Your task to perform on an android device: open app "The Home Depot" (install if not already installed), go to login, and select forgot password Image 0: 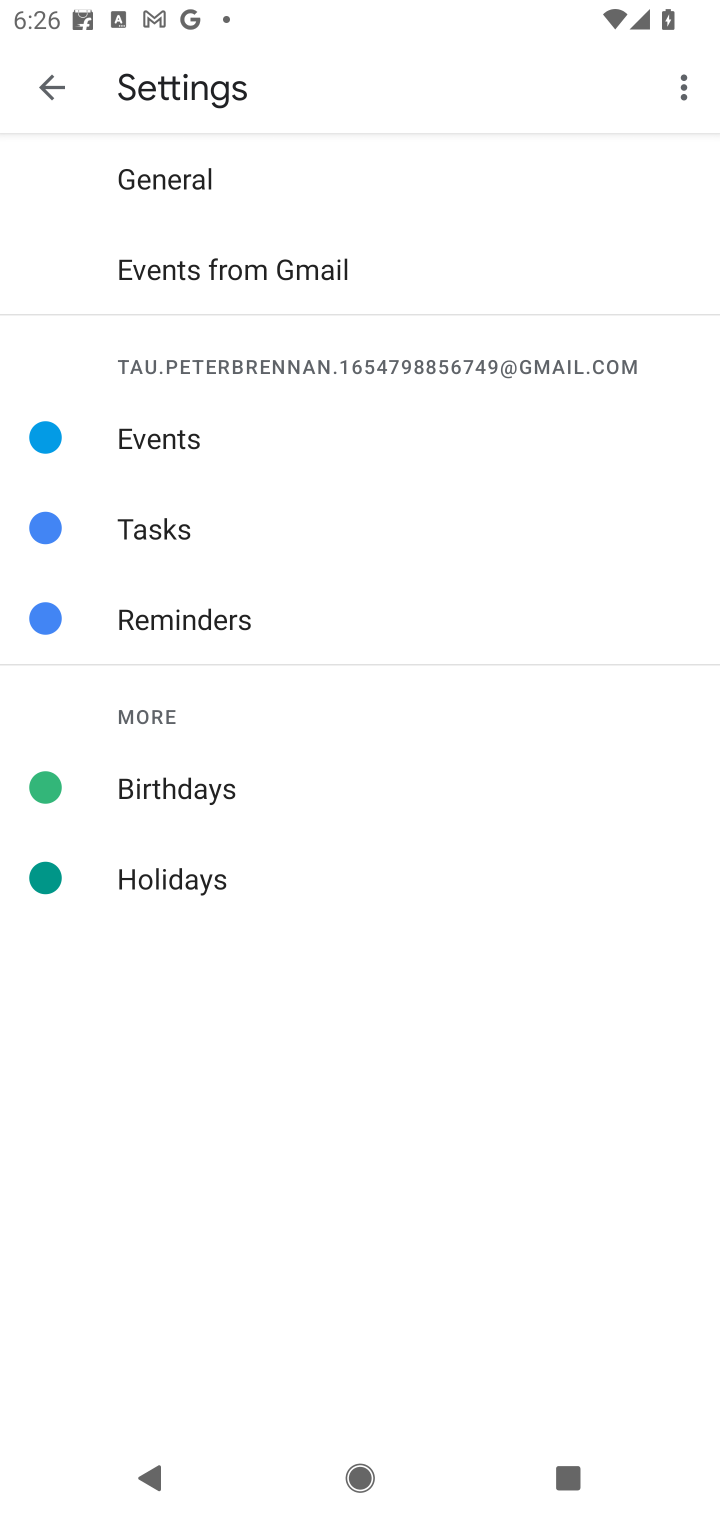
Step 0: press home button
Your task to perform on an android device: open app "The Home Depot" (install if not already installed), go to login, and select forgot password Image 1: 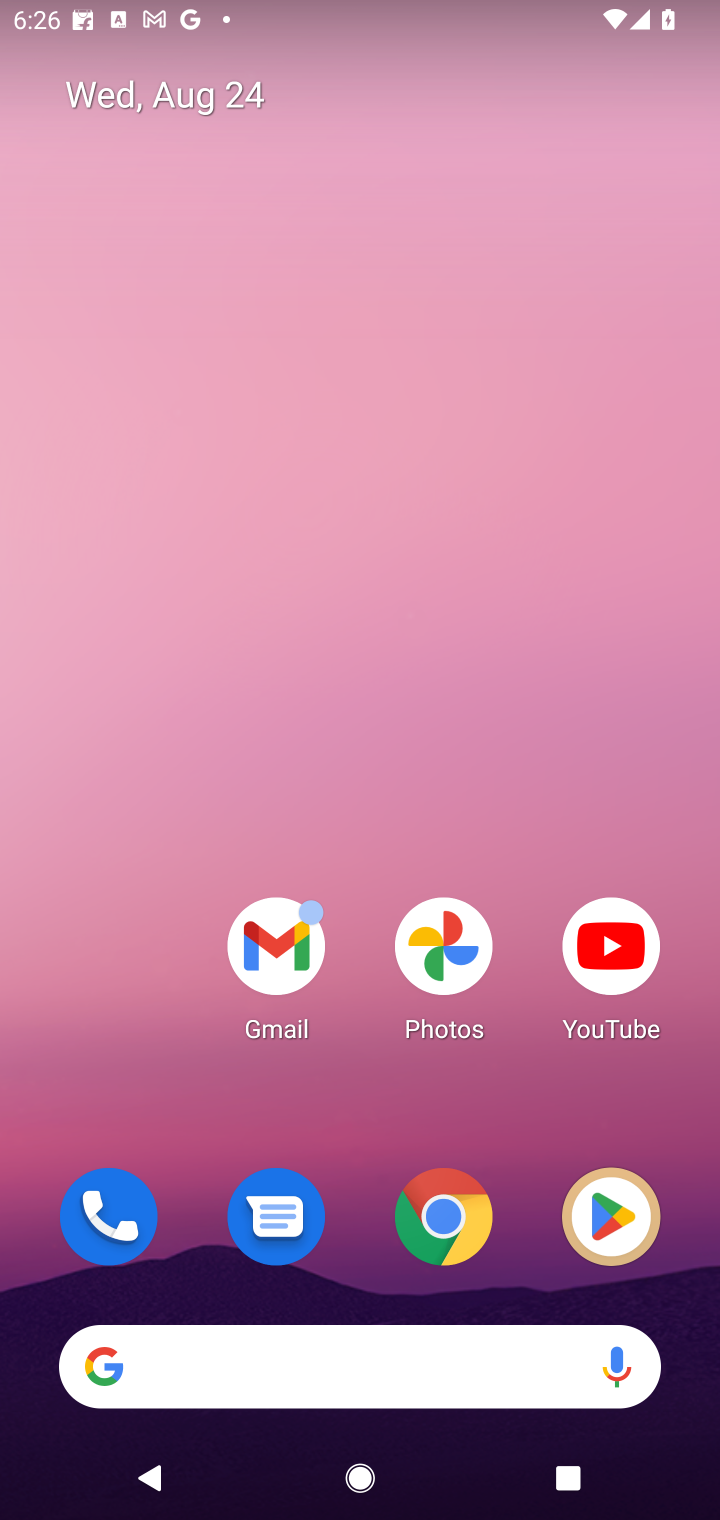
Step 1: click (598, 1201)
Your task to perform on an android device: open app "The Home Depot" (install if not already installed), go to login, and select forgot password Image 2: 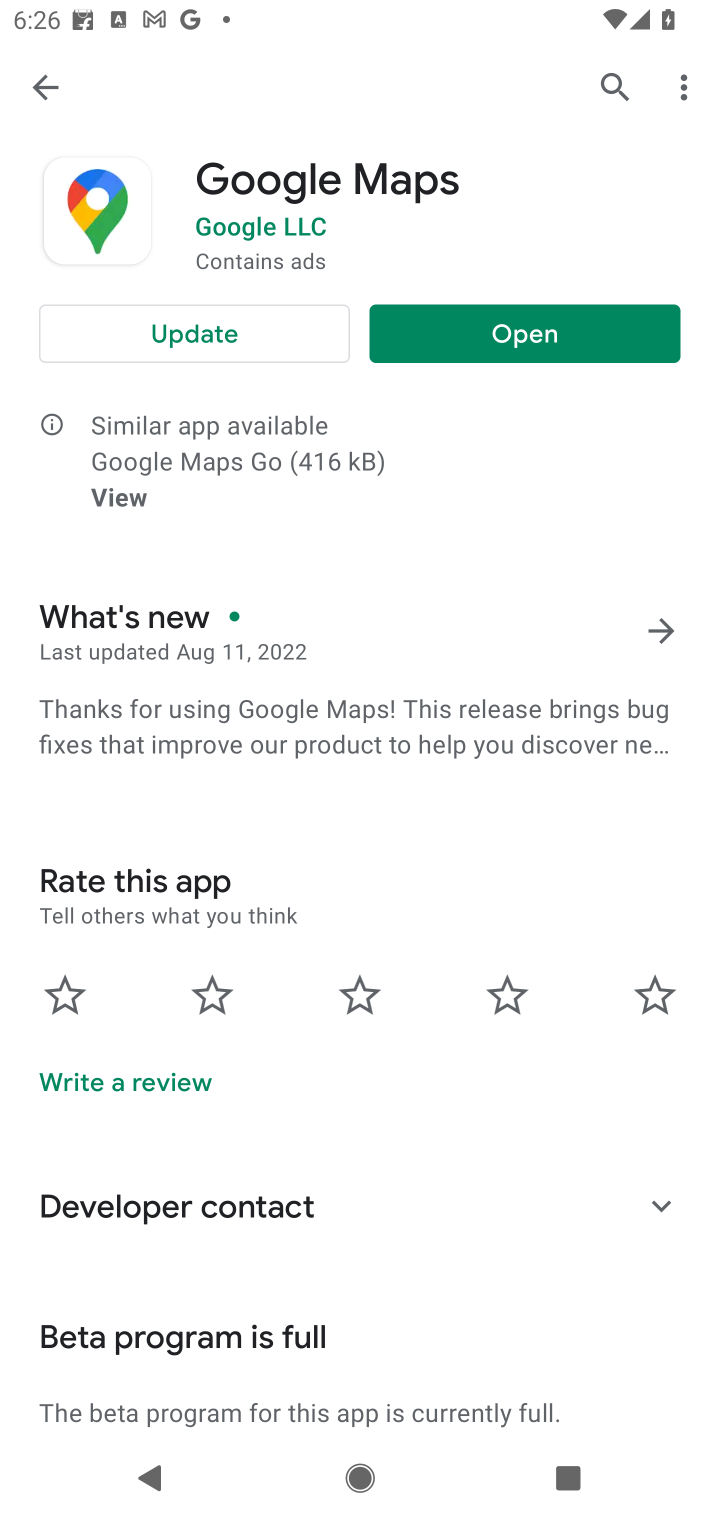
Step 2: click (596, 75)
Your task to perform on an android device: open app "The Home Depot" (install if not already installed), go to login, and select forgot password Image 3: 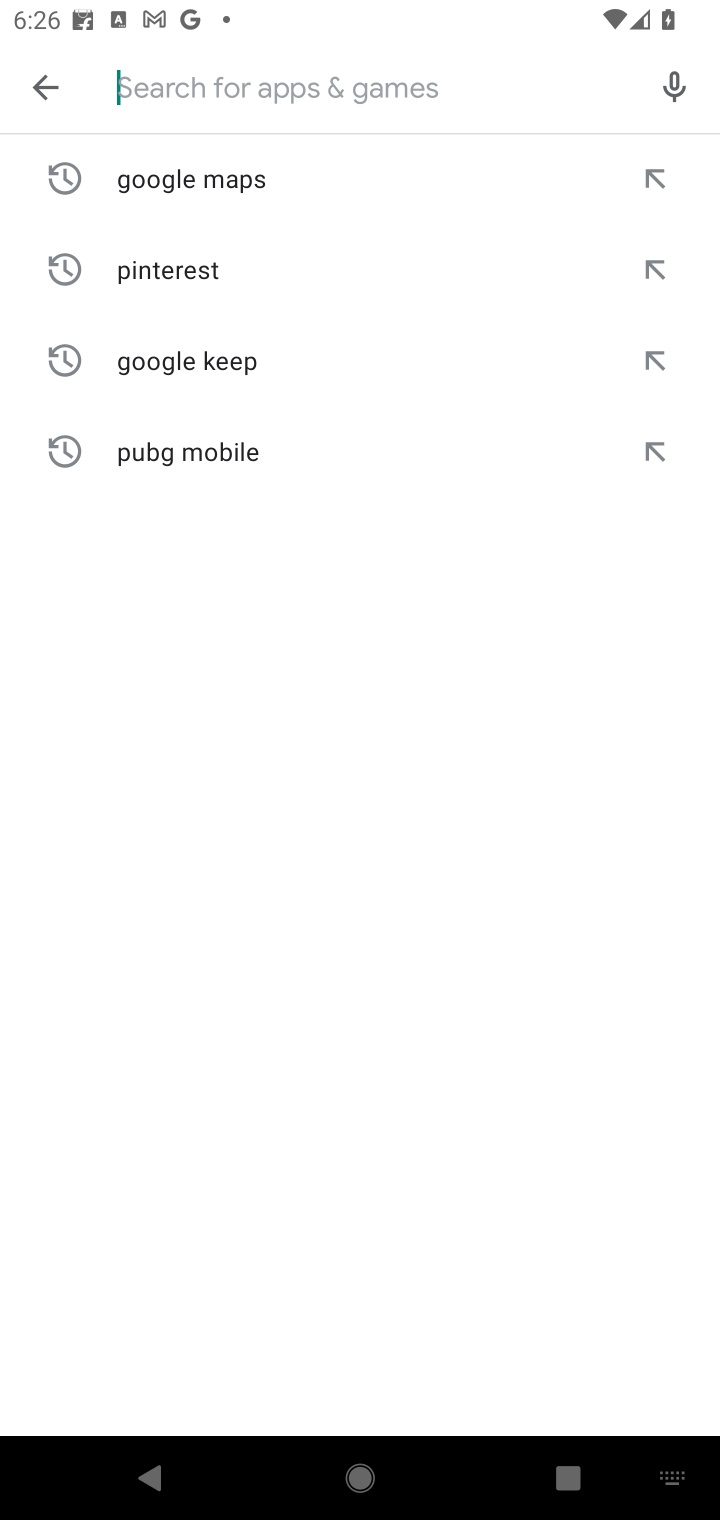
Step 3: type "The Home Depot"
Your task to perform on an android device: open app "The Home Depot" (install if not already installed), go to login, and select forgot password Image 4: 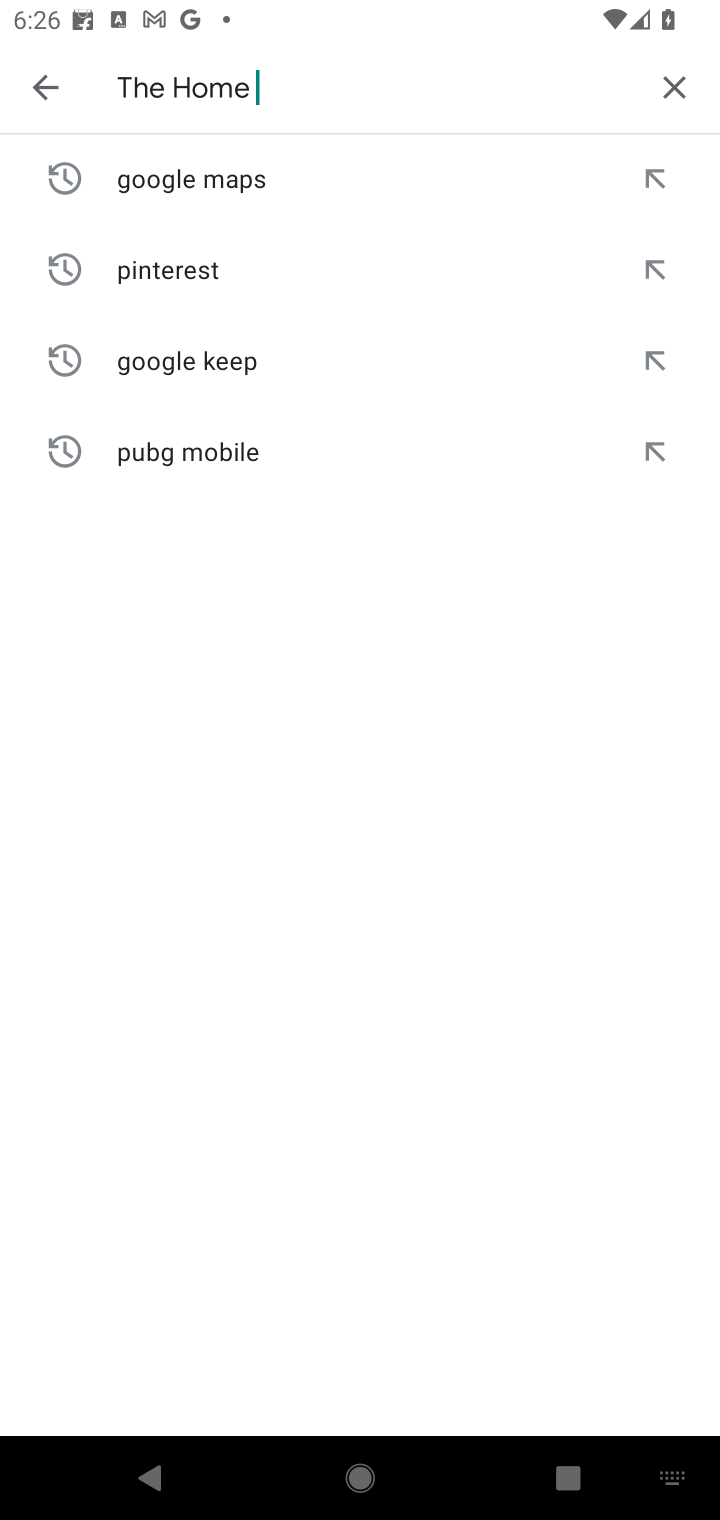
Step 4: type ""
Your task to perform on an android device: open app "The Home Depot" (install if not already installed), go to login, and select forgot password Image 5: 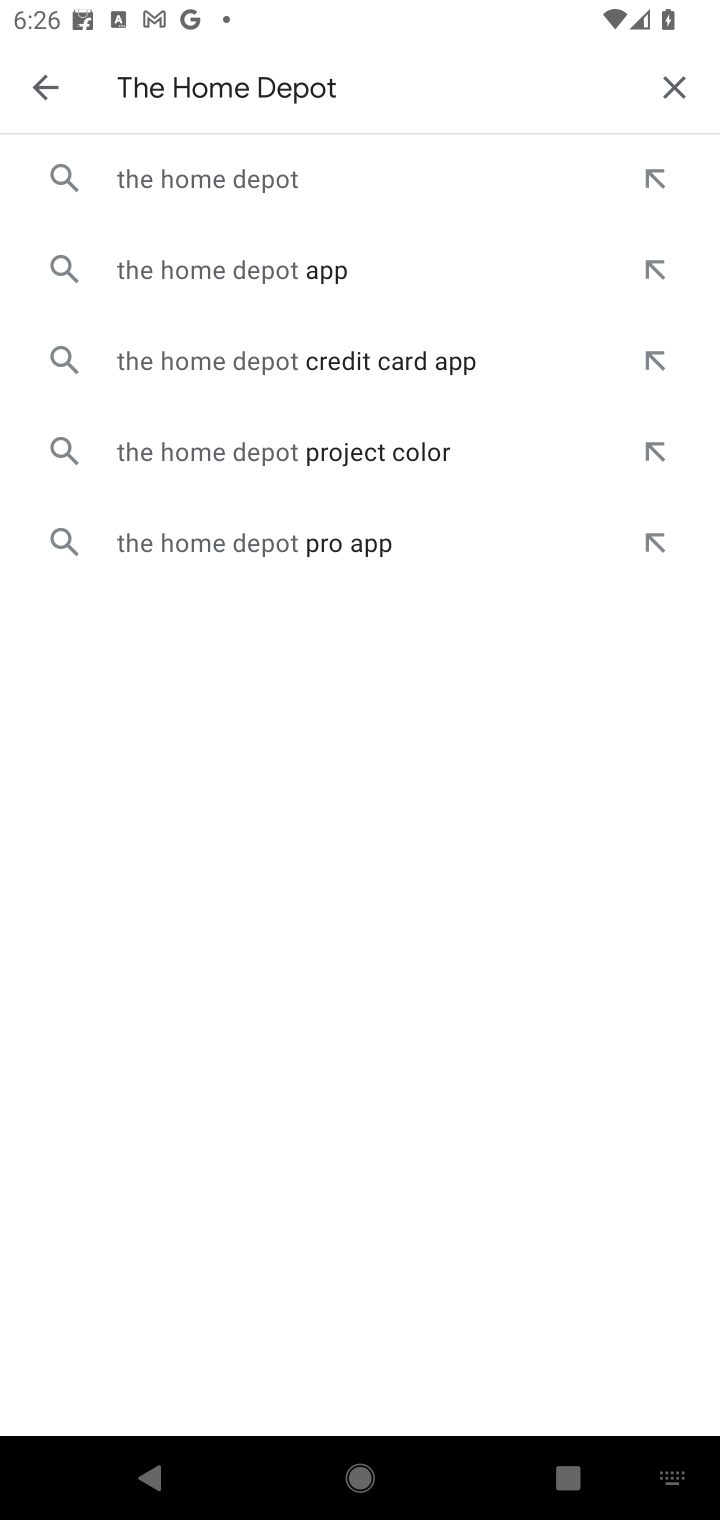
Step 5: click (351, 177)
Your task to perform on an android device: open app "The Home Depot" (install if not already installed), go to login, and select forgot password Image 6: 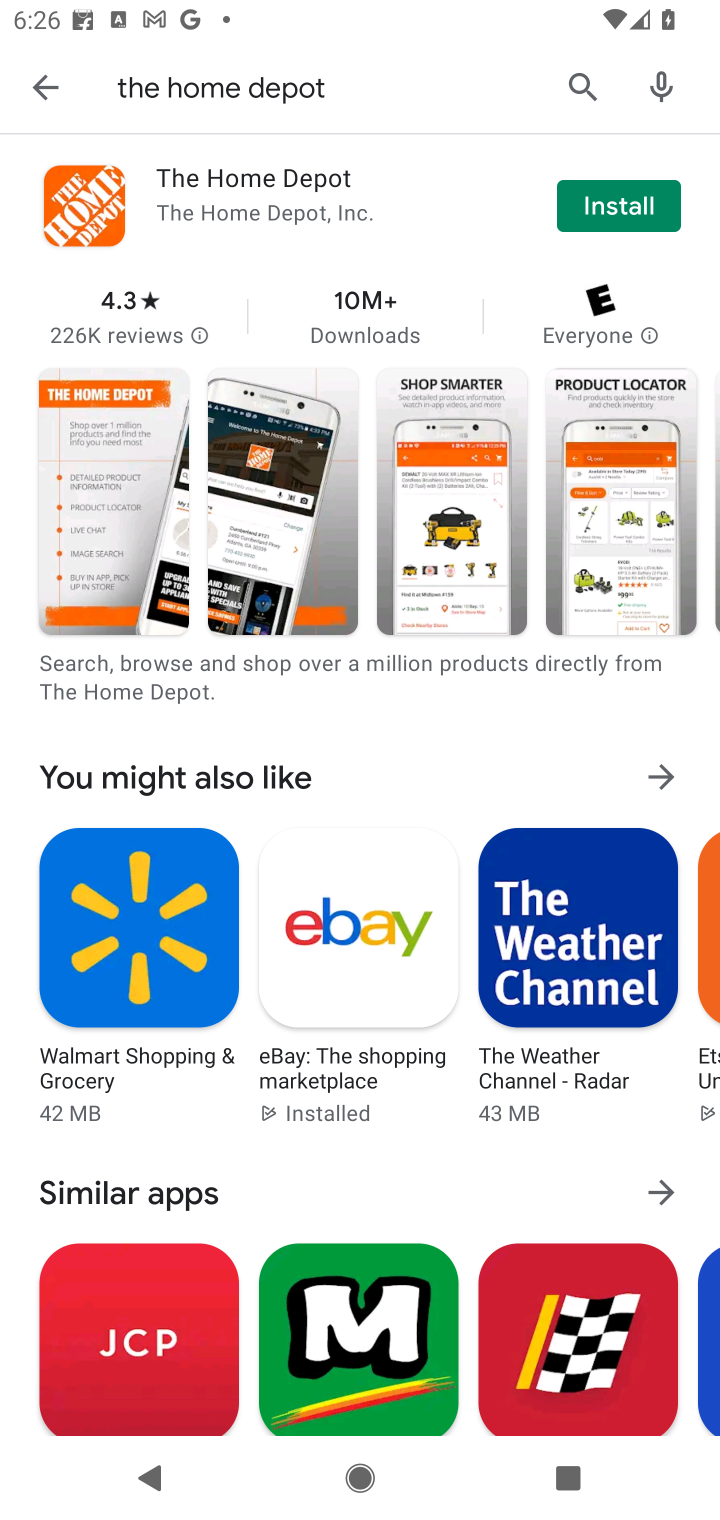
Step 6: click (606, 177)
Your task to perform on an android device: open app "The Home Depot" (install if not already installed), go to login, and select forgot password Image 7: 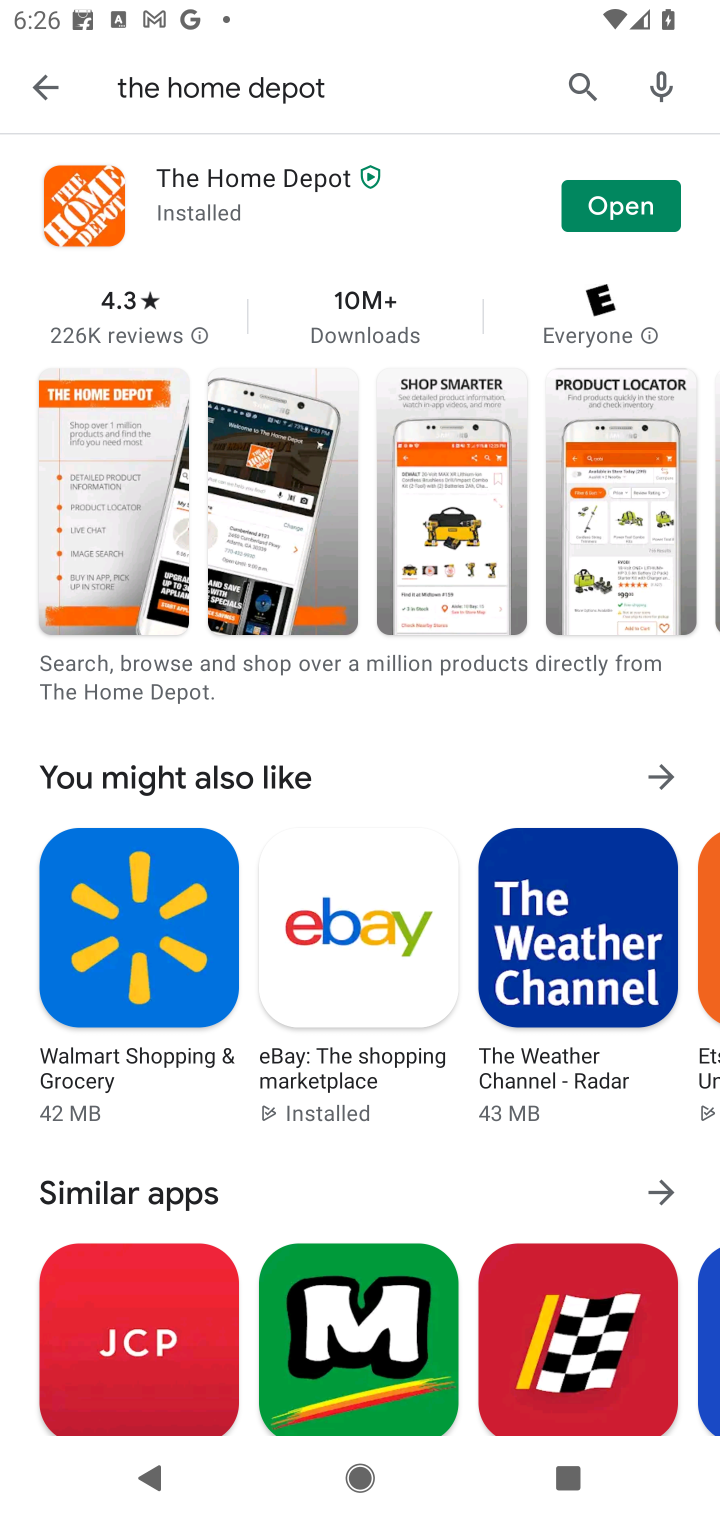
Step 7: click (639, 210)
Your task to perform on an android device: open app "The Home Depot" (install if not already installed), go to login, and select forgot password Image 8: 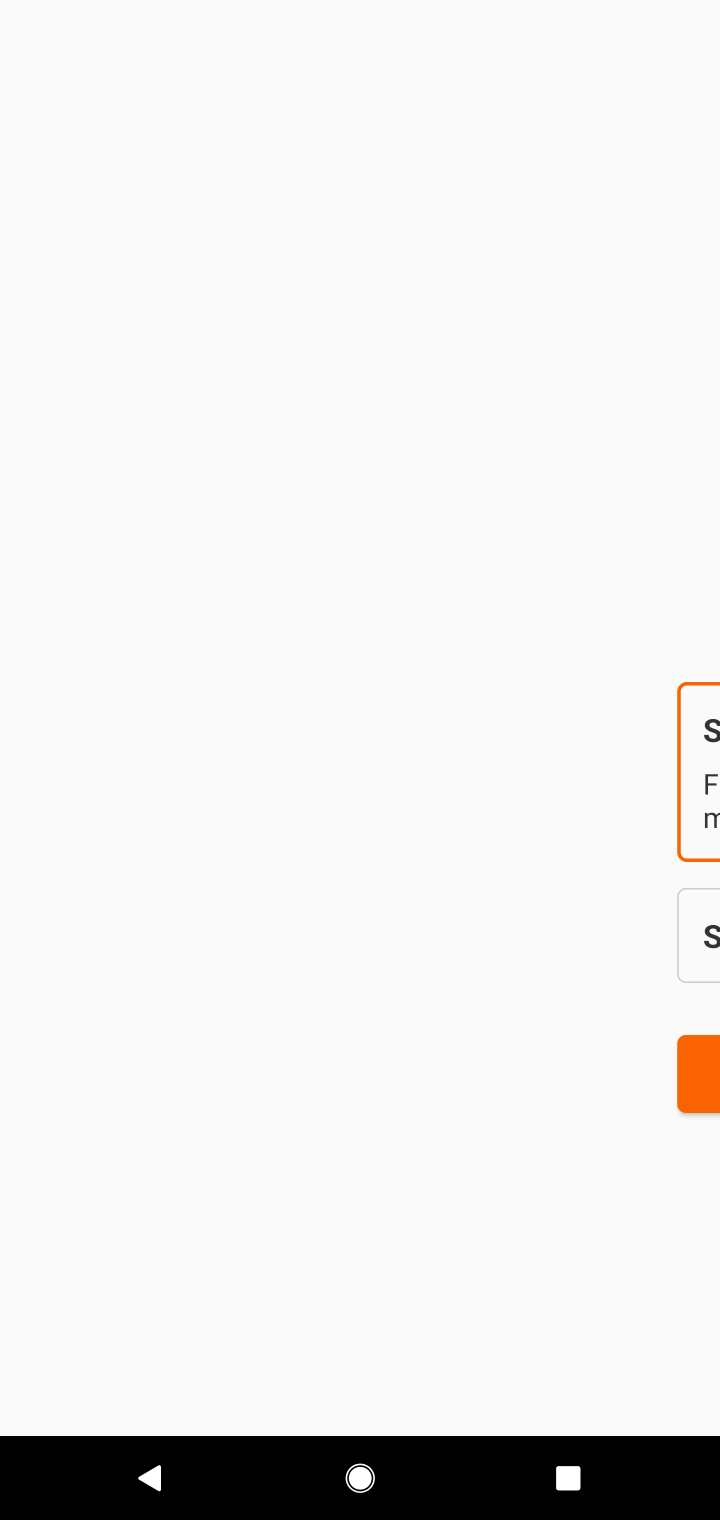
Step 8: task complete